Your task to perform on an android device: open chrome privacy settings Image 0: 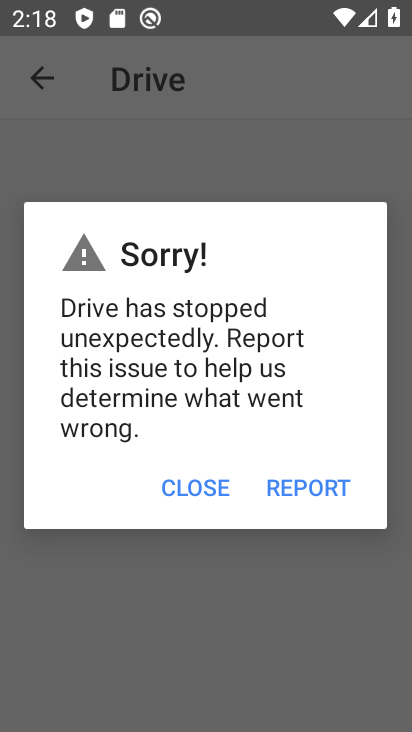
Step 0: press back button
Your task to perform on an android device: open chrome privacy settings Image 1: 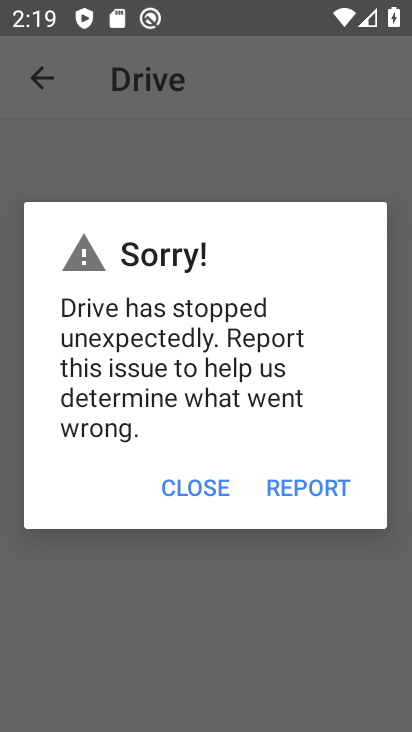
Step 1: press back button
Your task to perform on an android device: open chrome privacy settings Image 2: 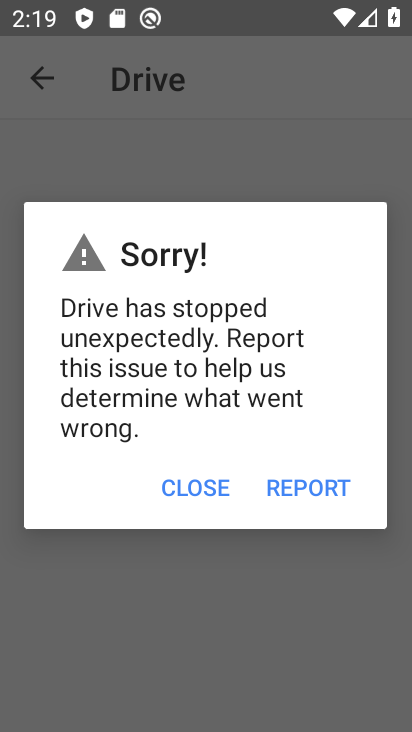
Step 2: press home button
Your task to perform on an android device: open chrome privacy settings Image 3: 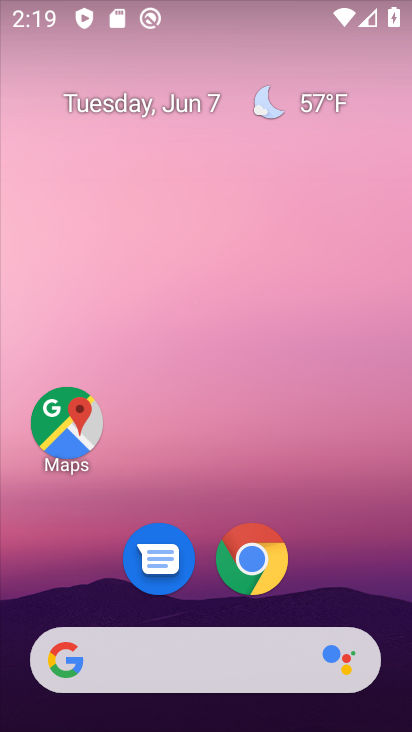
Step 3: drag from (383, 600) to (251, 16)
Your task to perform on an android device: open chrome privacy settings Image 4: 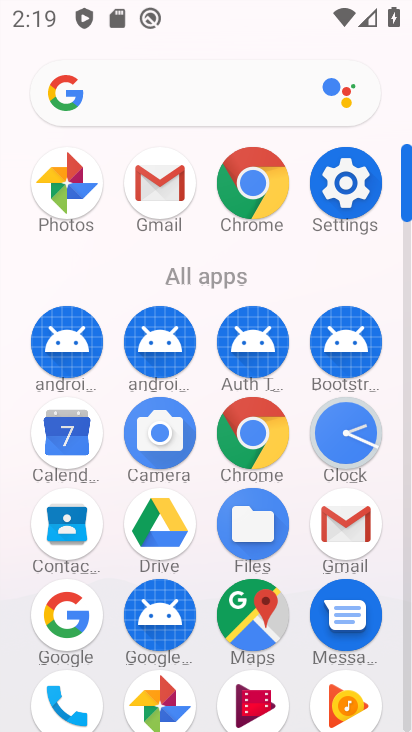
Step 4: click (246, 181)
Your task to perform on an android device: open chrome privacy settings Image 5: 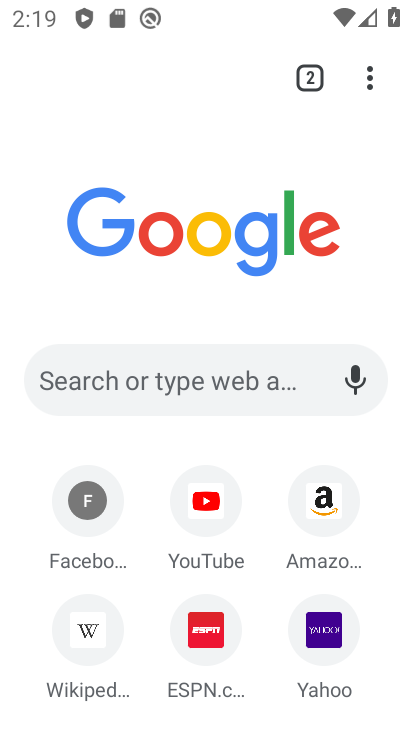
Step 5: drag from (363, 78) to (124, 646)
Your task to perform on an android device: open chrome privacy settings Image 6: 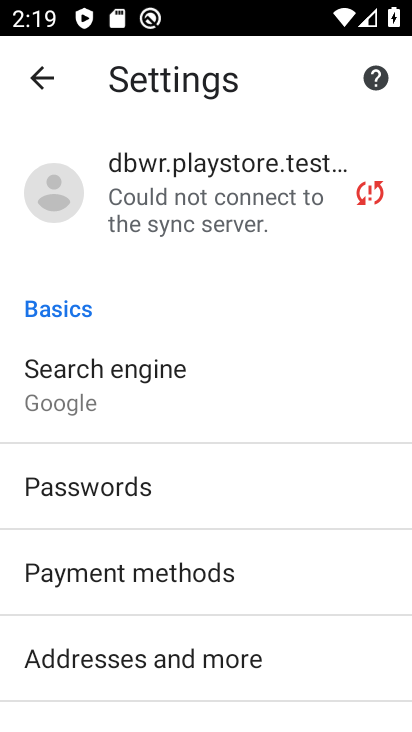
Step 6: drag from (255, 544) to (292, 104)
Your task to perform on an android device: open chrome privacy settings Image 7: 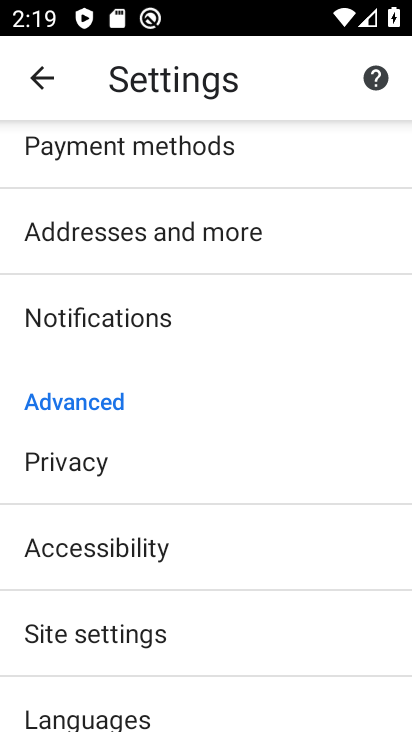
Step 7: drag from (274, 527) to (305, 208)
Your task to perform on an android device: open chrome privacy settings Image 8: 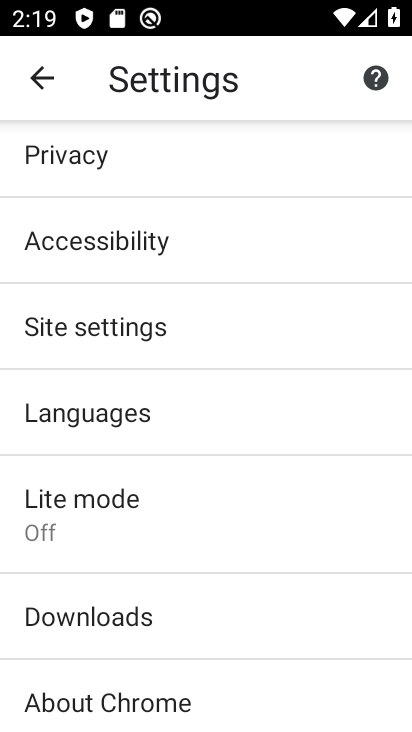
Step 8: click (127, 159)
Your task to perform on an android device: open chrome privacy settings Image 9: 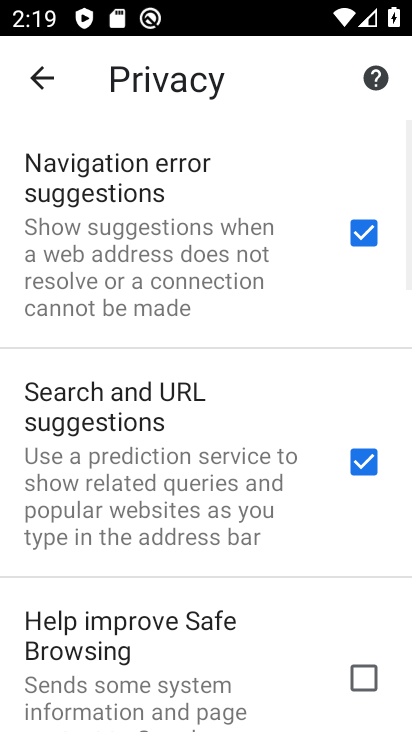
Step 9: task complete